Your task to perform on an android device: Open battery settings Image 0: 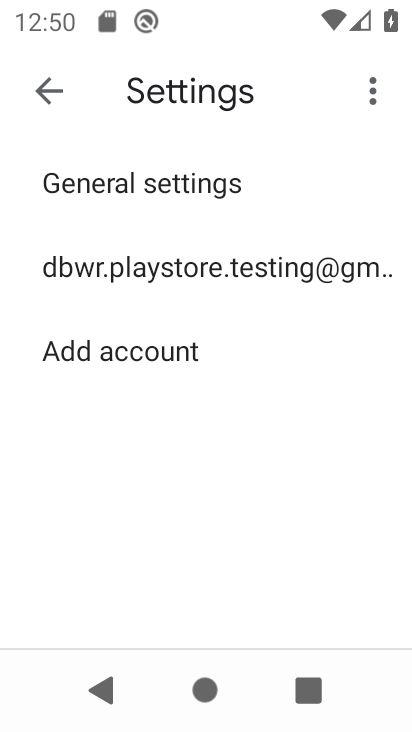
Step 0: press home button
Your task to perform on an android device: Open battery settings Image 1: 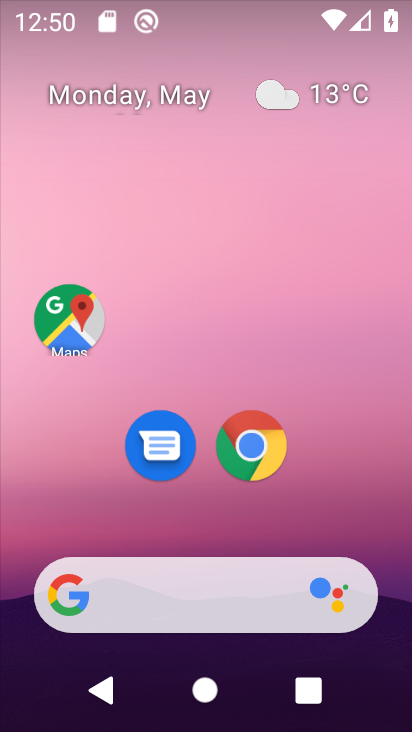
Step 1: drag from (332, 521) to (396, 38)
Your task to perform on an android device: Open battery settings Image 2: 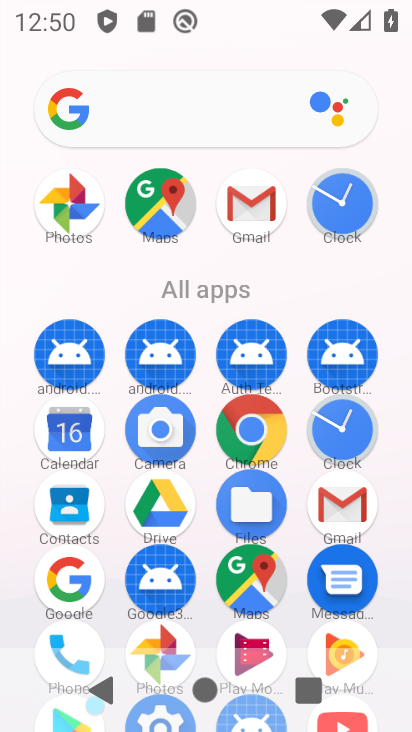
Step 2: press home button
Your task to perform on an android device: Open battery settings Image 3: 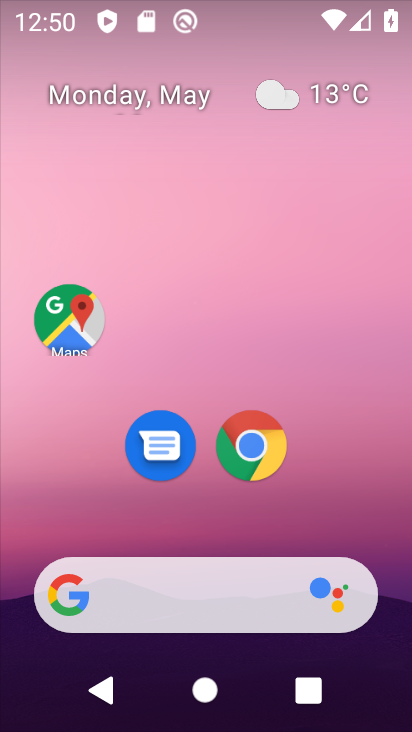
Step 3: drag from (300, 519) to (258, 61)
Your task to perform on an android device: Open battery settings Image 4: 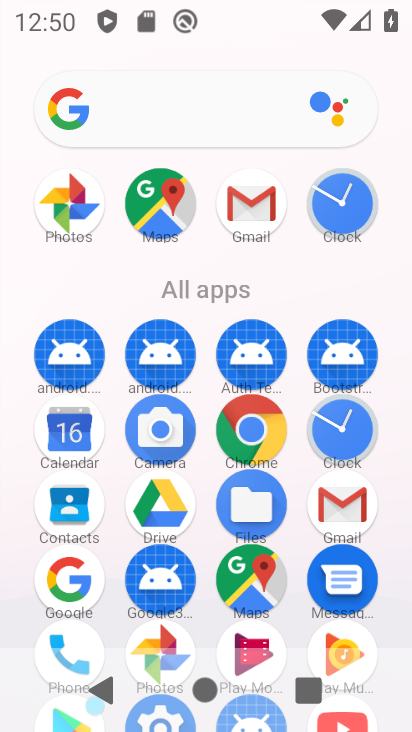
Step 4: drag from (274, 619) to (314, 302)
Your task to perform on an android device: Open battery settings Image 5: 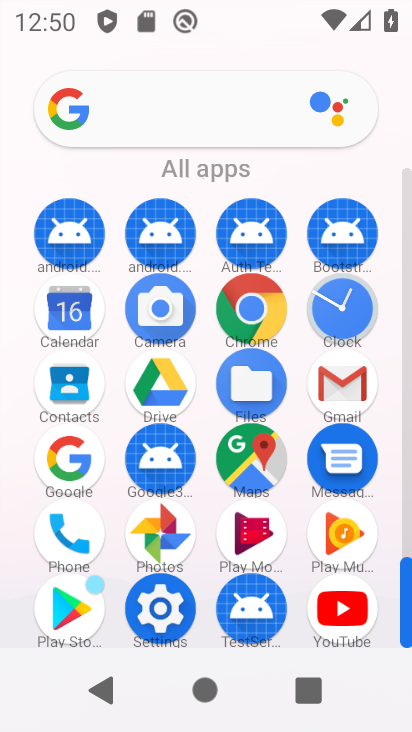
Step 5: click (161, 617)
Your task to perform on an android device: Open battery settings Image 6: 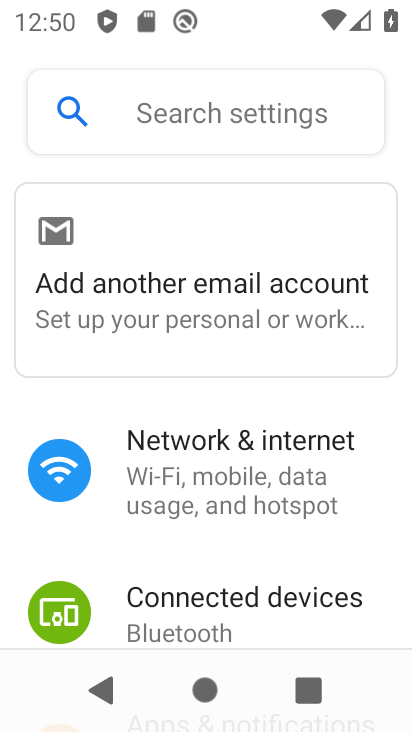
Step 6: drag from (216, 586) to (216, 225)
Your task to perform on an android device: Open battery settings Image 7: 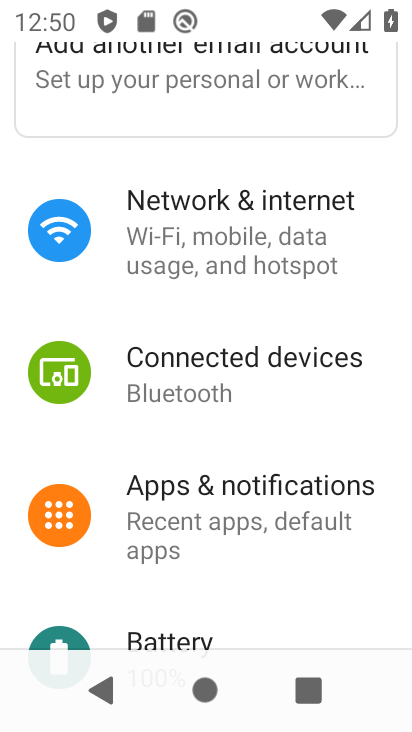
Step 7: drag from (179, 610) to (254, 308)
Your task to perform on an android device: Open battery settings Image 8: 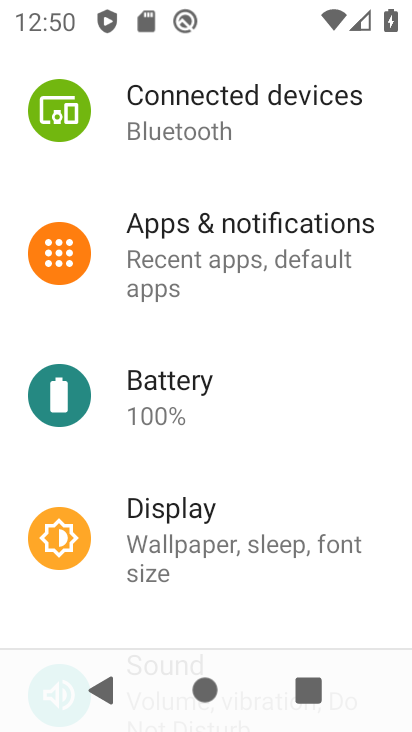
Step 8: click (179, 395)
Your task to perform on an android device: Open battery settings Image 9: 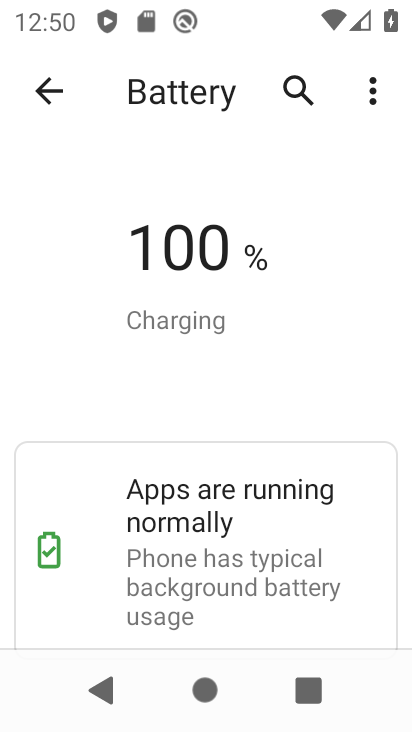
Step 9: task complete